Your task to perform on an android device: turn on javascript in the chrome app Image 0: 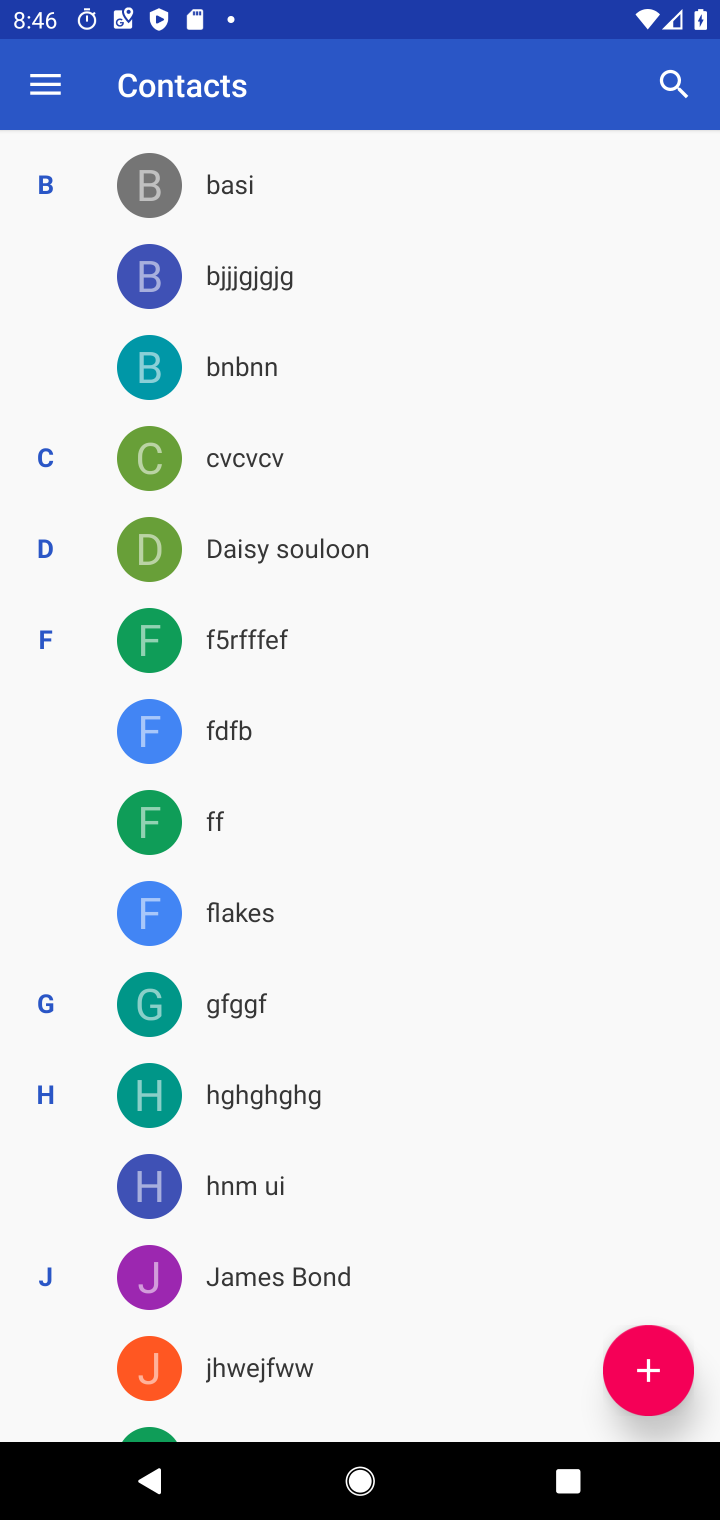
Step 0: press home button
Your task to perform on an android device: turn on javascript in the chrome app Image 1: 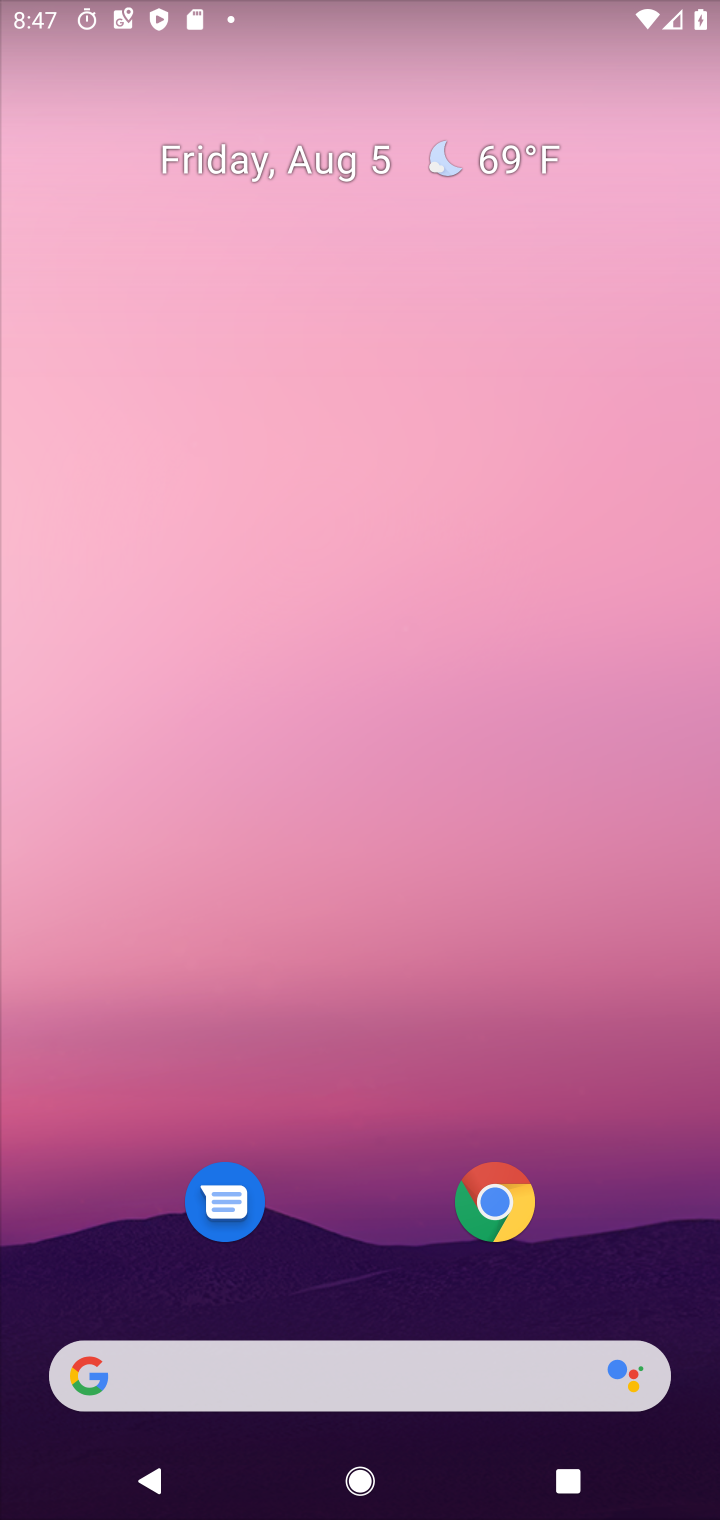
Step 1: click (497, 1196)
Your task to perform on an android device: turn on javascript in the chrome app Image 2: 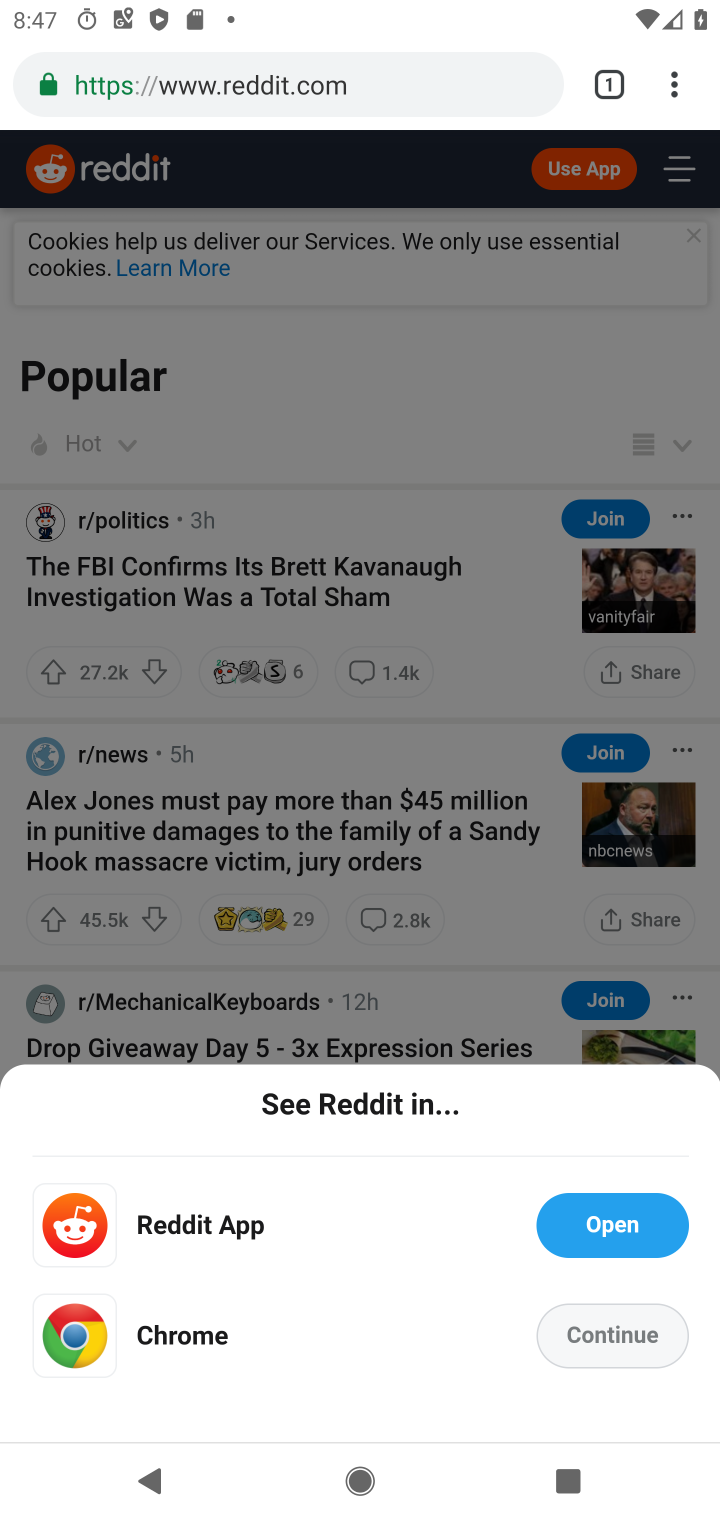
Step 2: click (667, 85)
Your task to perform on an android device: turn on javascript in the chrome app Image 3: 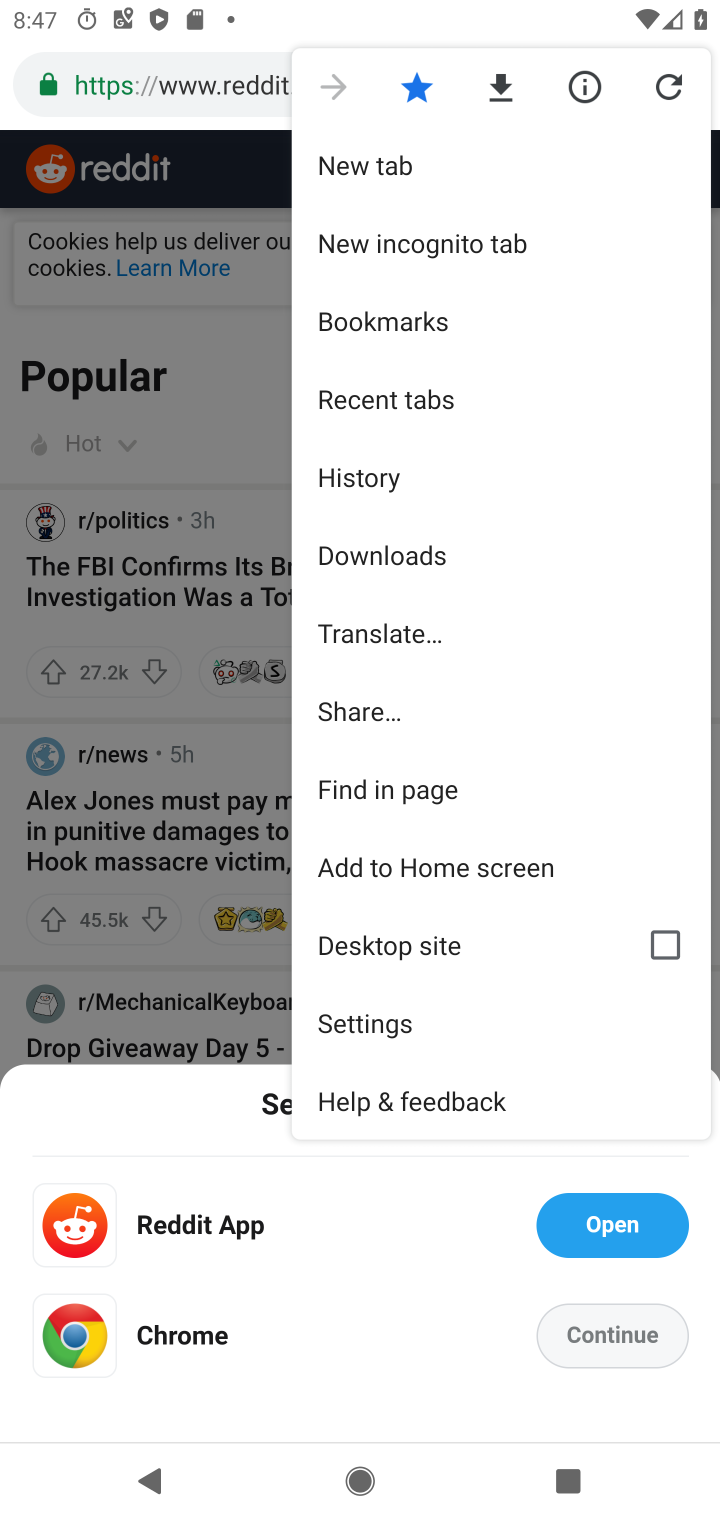
Step 3: click (324, 1008)
Your task to perform on an android device: turn on javascript in the chrome app Image 4: 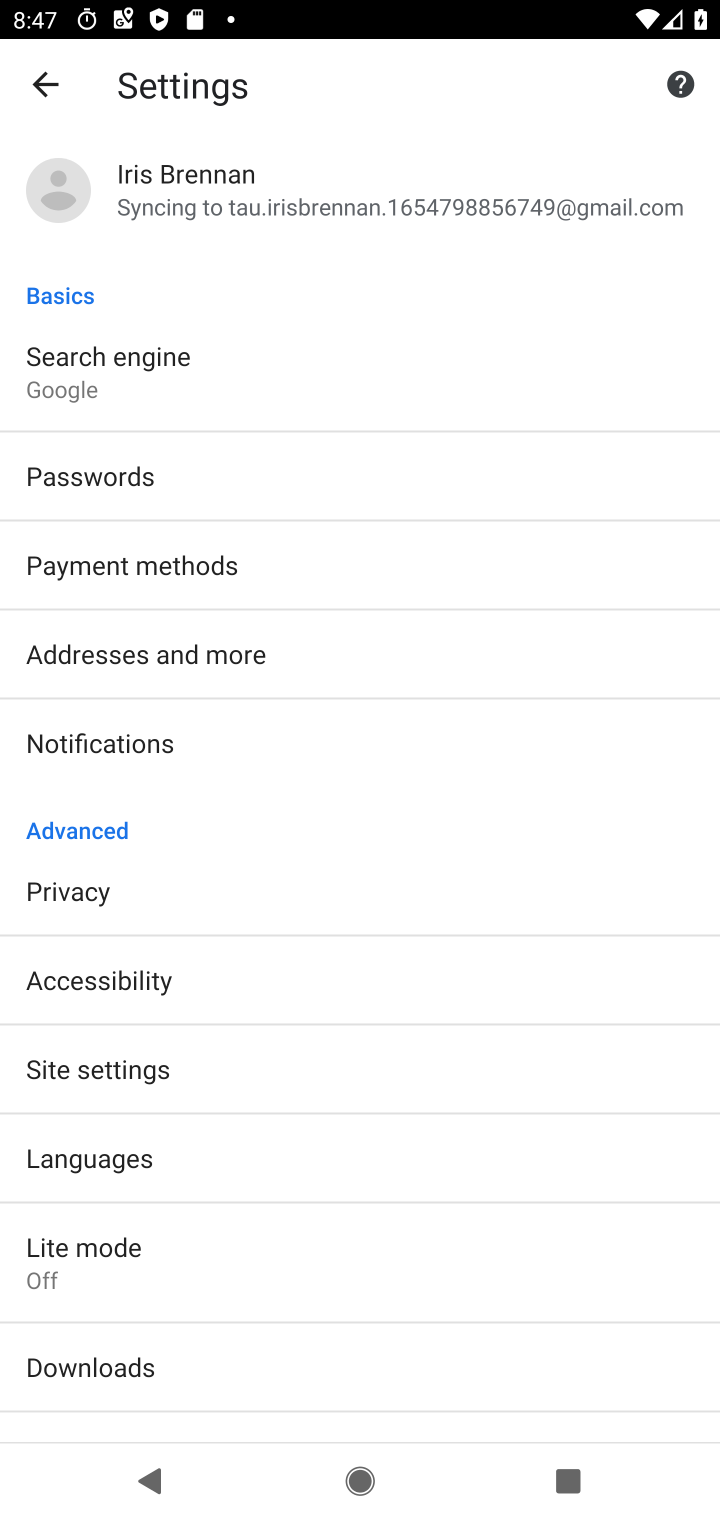
Step 4: click (290, 1052)
Your task to perform on an android device: turn on javascript in the chrome app Image 5: 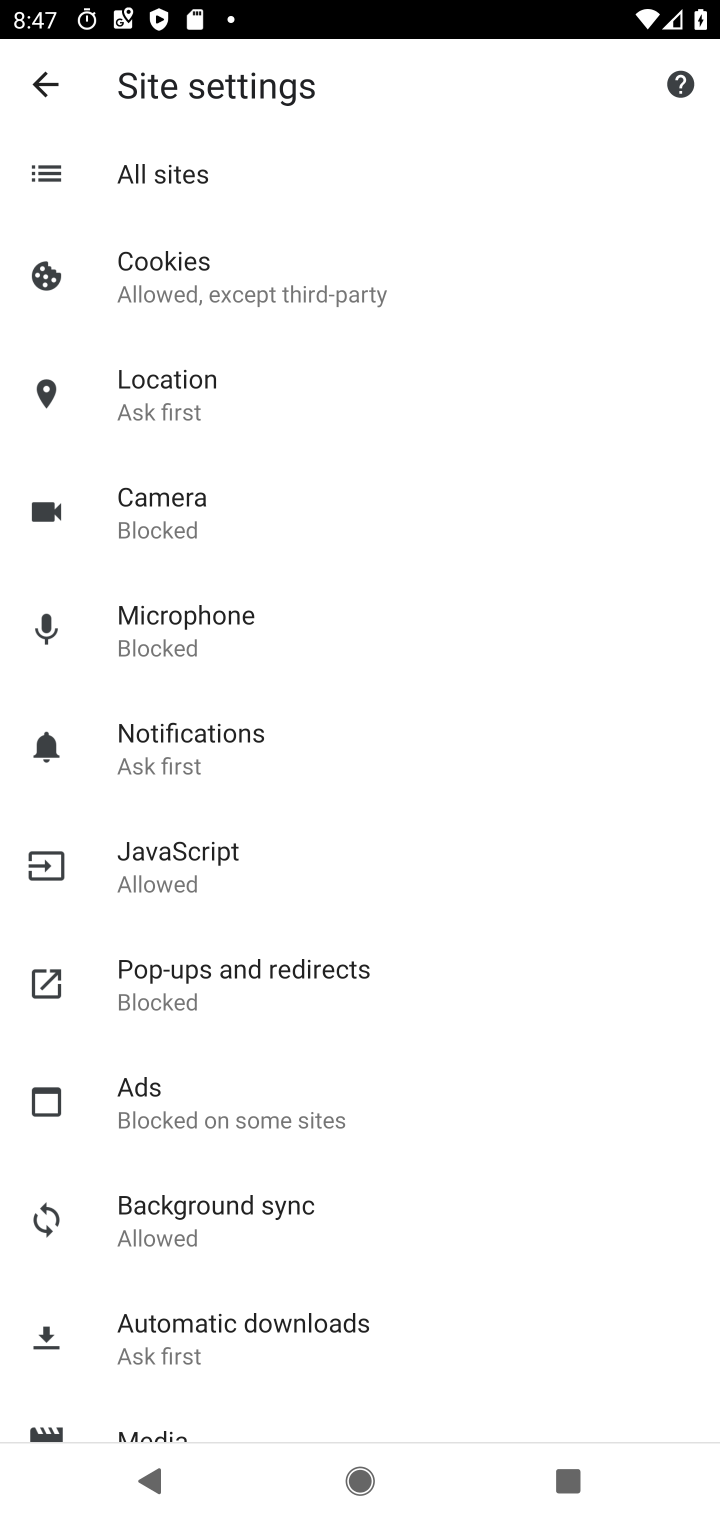
Step 5: click (205, 846)
Your task to perform on an android device: turn on javascript in the chrome app Image 6: 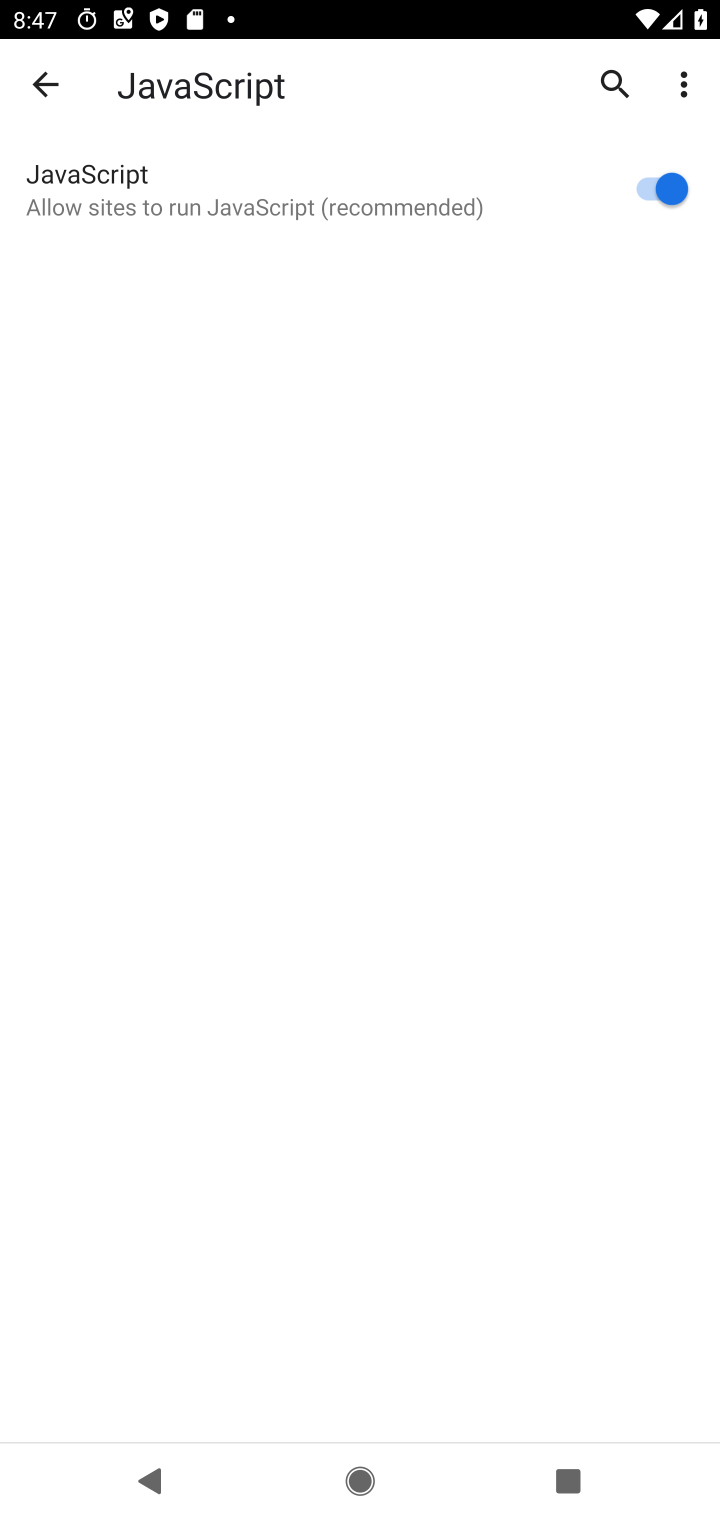
Step 6: task complete